Your task to perform on an android device: Go to accessibility settings Image 0: 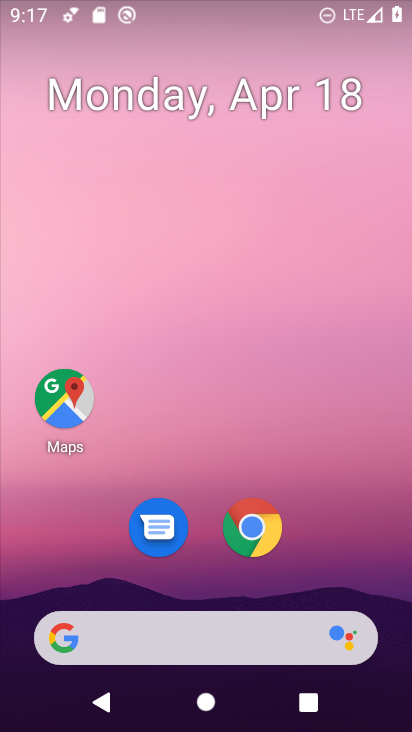
Step 0: drag from (398, 597) to (250, 4)
Your task to perform on an android device: Go to accessibility settings Image 1: 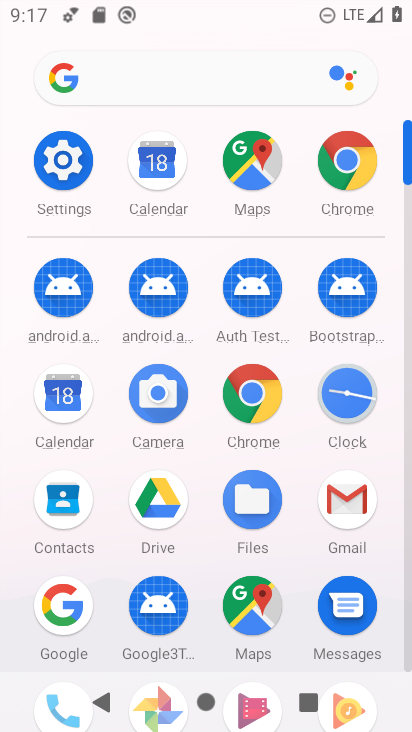
Step 1: click (63, 160)
Your task to perform on an android device: Go to accessibility settings Image 2: 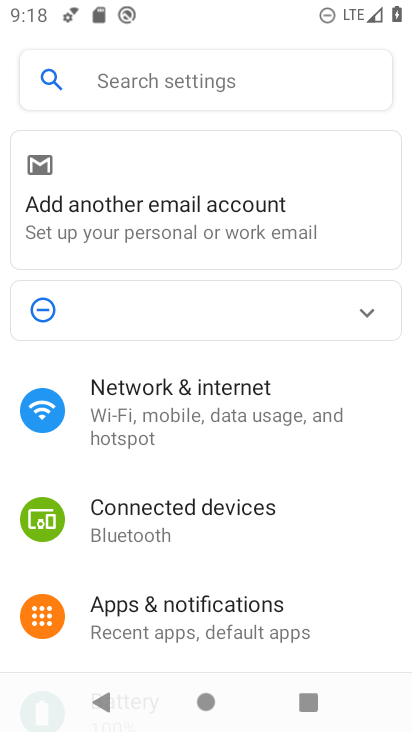
Step 2: drag from (311, 553) to (297, 128)
Your task to perform on an android device: Go to accessibility settings Image 3: 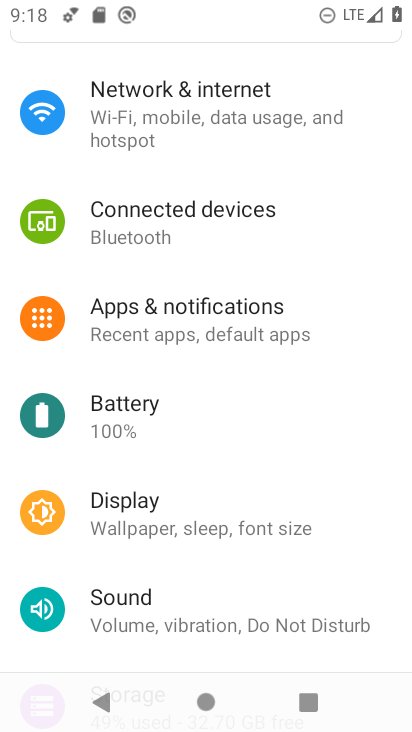
Step 3: drag from (311, 458) to (309, 83)
Your task to perform on an android device: Go to accessibility settings Image 4: 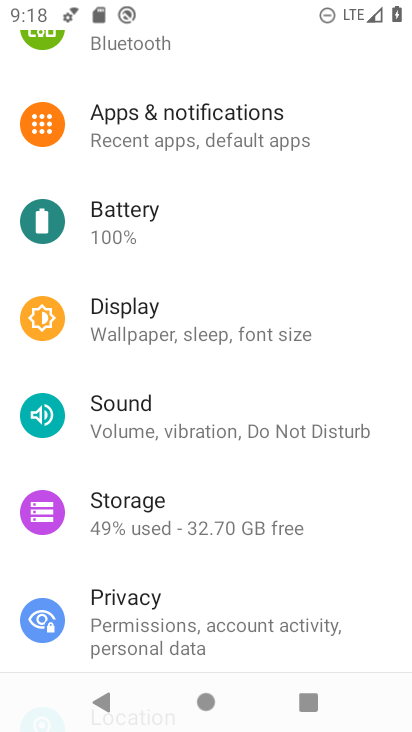
Step 4: drag from (292, 514) to (288, 126)
Your task to perform on an android device: Go to accessibility settings Image 5: 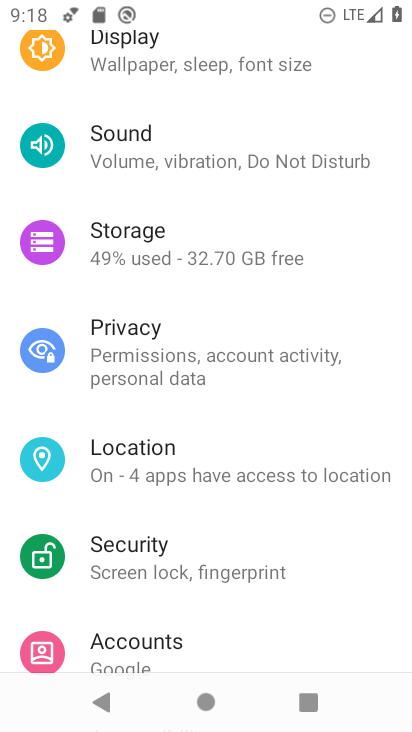
Step 5: drag from (283, 512) to (293, 126)
Your task to perform on an android device: Go to accessibility settings Image 6: 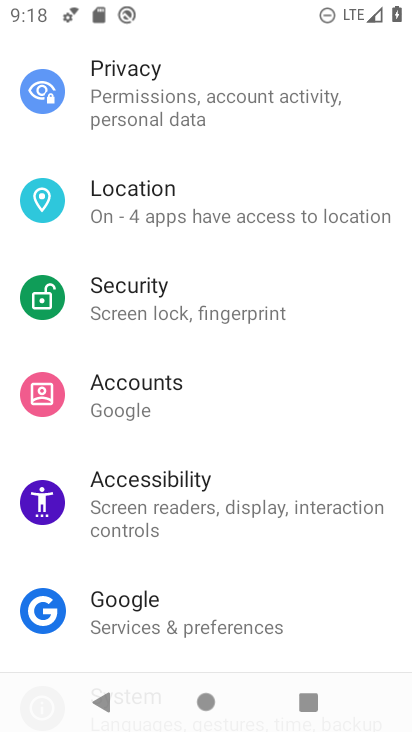
Step 6: drag from (279, 582) to (323, 139)
Your task to perform on an android device: Go to accessibility settings Image 7: 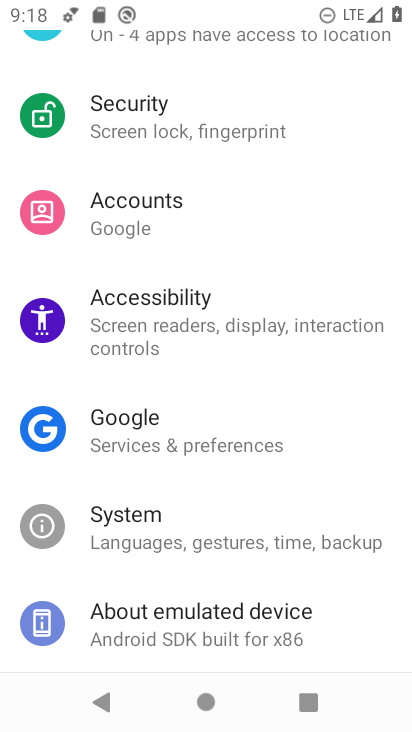
Step 7: click (233, 527)
Your task to perform on an android device: Go to accessibility settings Image 8: 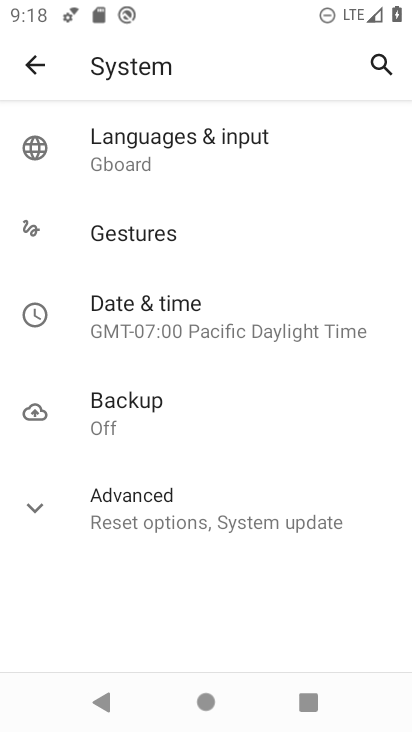
Step 8: click (35, 48)
Your task to perform on an android device: Go to accessibility settings Image 9: 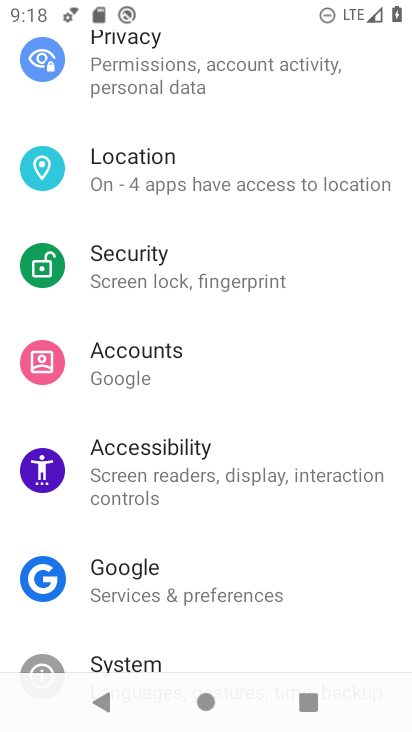
Step 9: drag from (234, 531) to (253, 202)
Your task to perform on an android device: Go to accessibility settings Image 10: 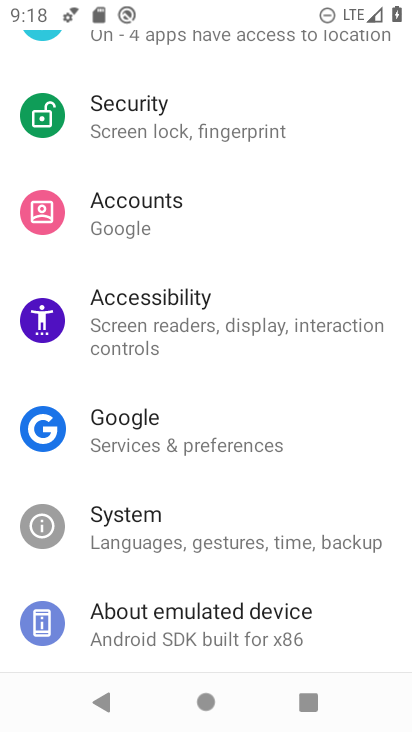
Step 10: click (222, 550)
Your task to perform on an android device: Go to accessibility settings Image 11: 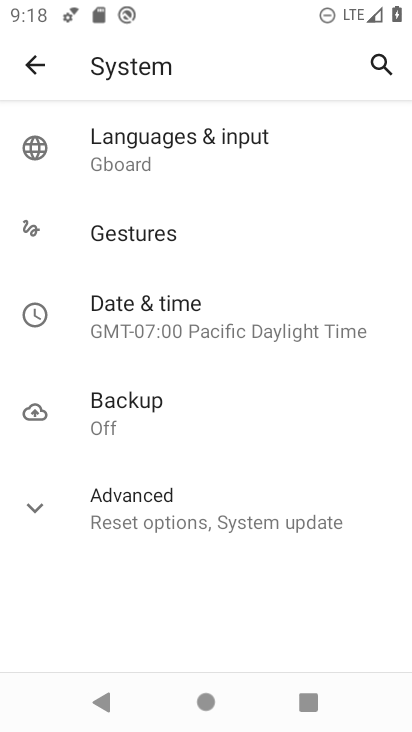
Step 11: click (132, 519)
Your task to perform on an android device: Go to accessibility settings Image 12: 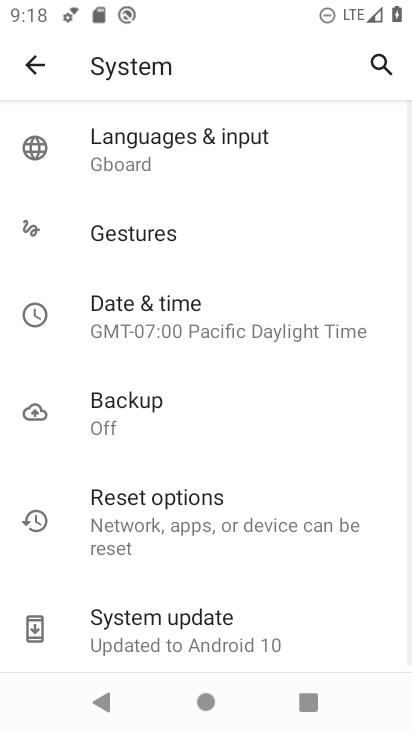
Step 12: click (45, 59)
Your task to perform on an android device: Go to accessibility settings Image 13: 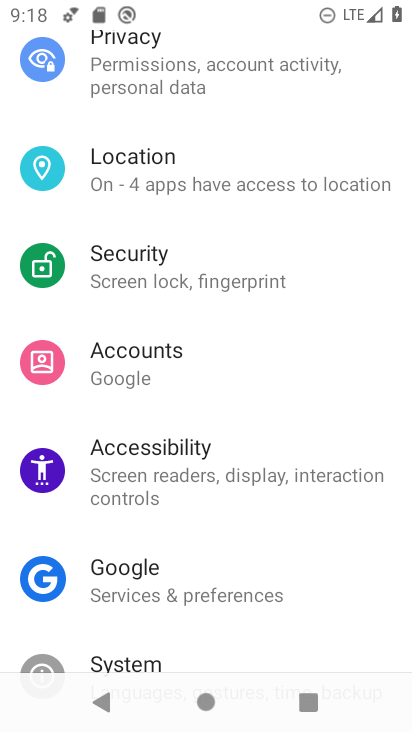
Step 13: click (196, 446)
Your task to perform on an android device: Go to accessibility settings Image 14: 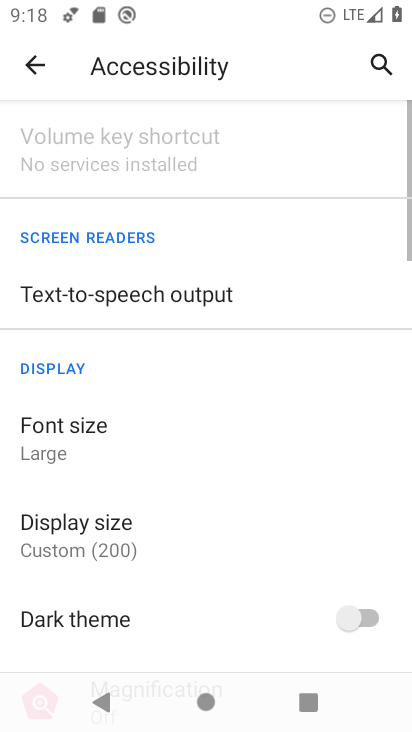
Step 14: task complete